Your task to perform on an android device: Clear all items from cart on walmart. Image 0: 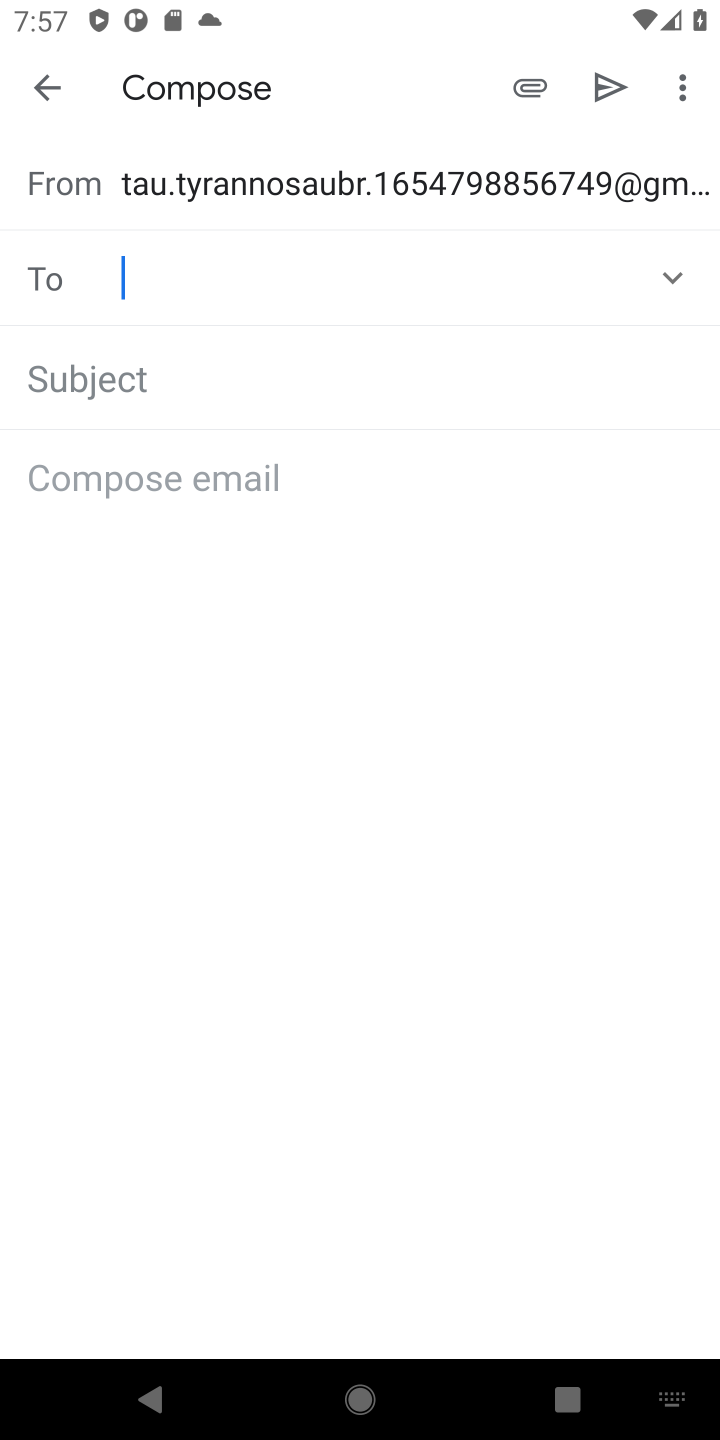
Step 0: press home button
Your task to perform on an android device: Clear all items from cart on walmart. Image 1: 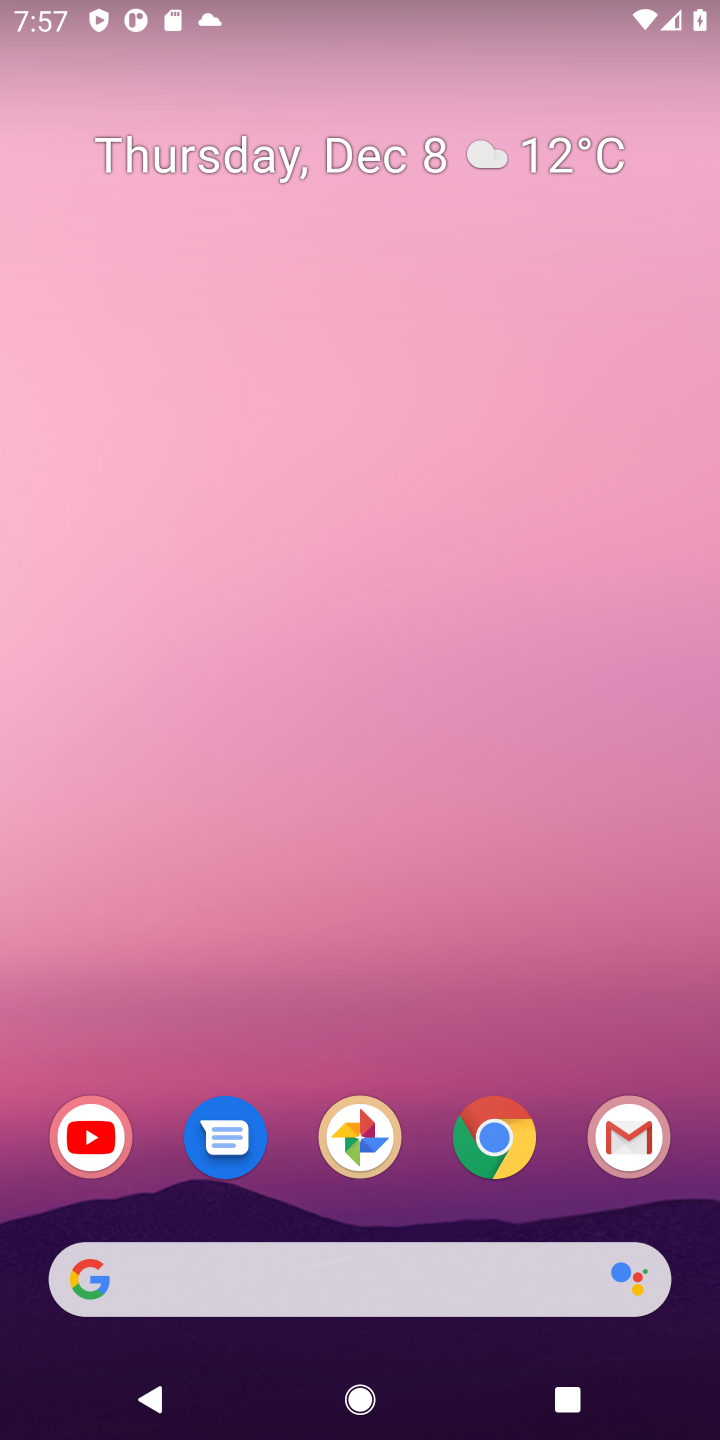
Step 1: click (484, 1147)
Your task to perform on an android device: Clear all items from cart on walmart. Image 2: 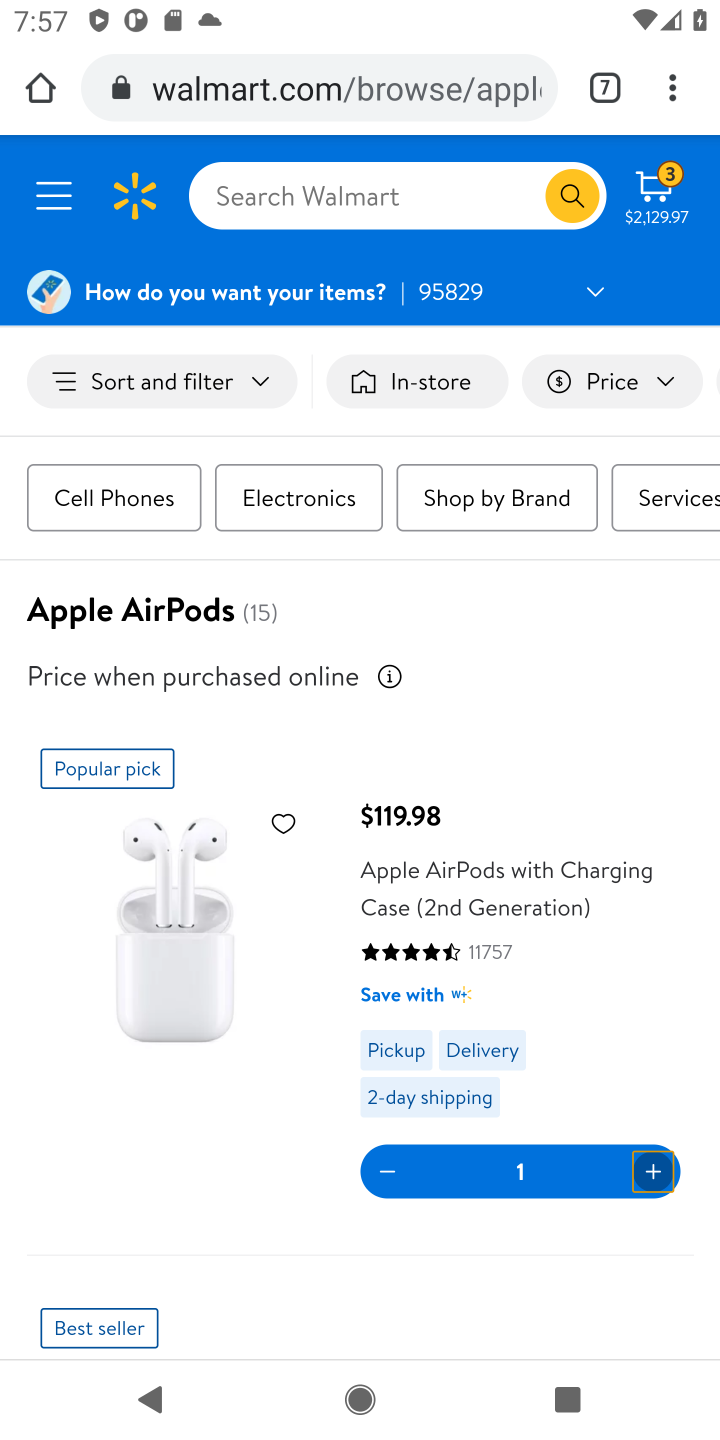
Step 2: click (663, 179)
Your task to perform on an android device: Clear all items from cart on walmart. Image 3: 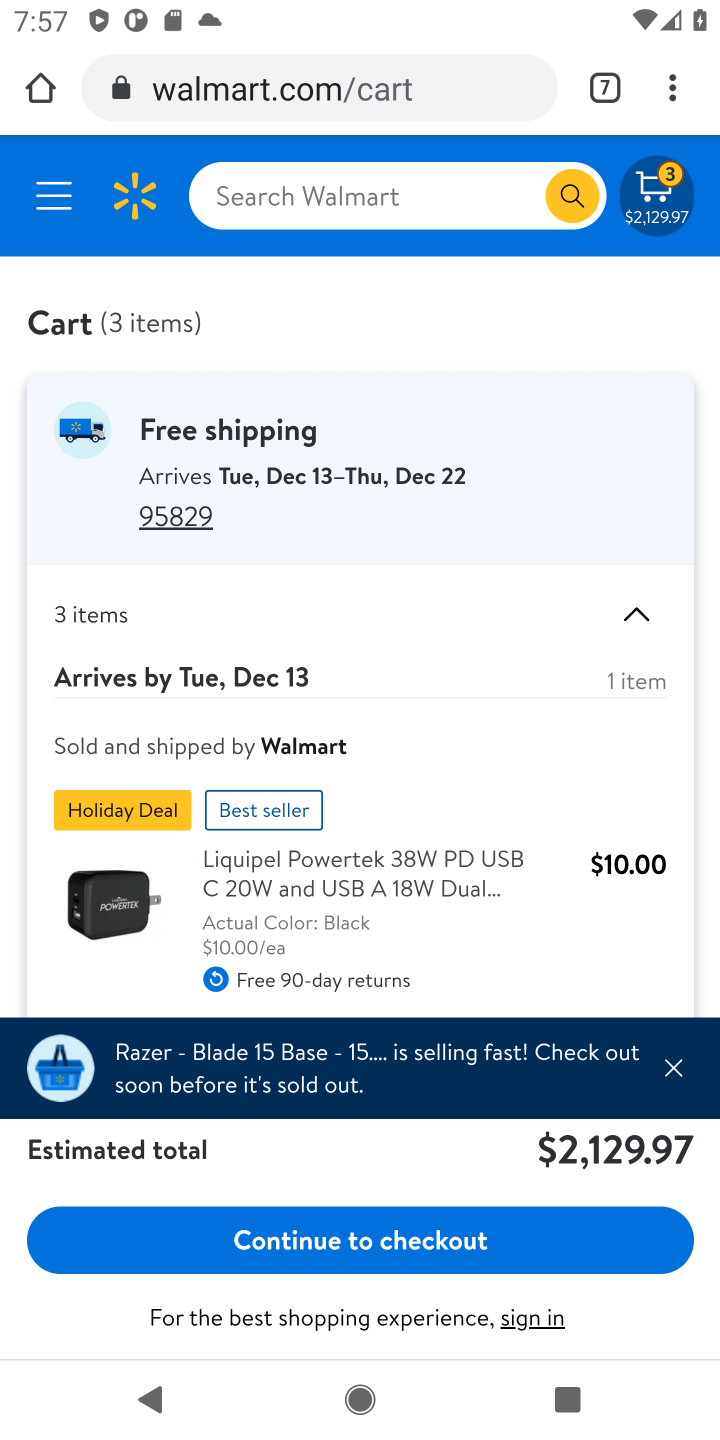
Step 3: click (680, 1065)
Your task to perform on an android device: Clear all items from cart on walmart. Image 4: 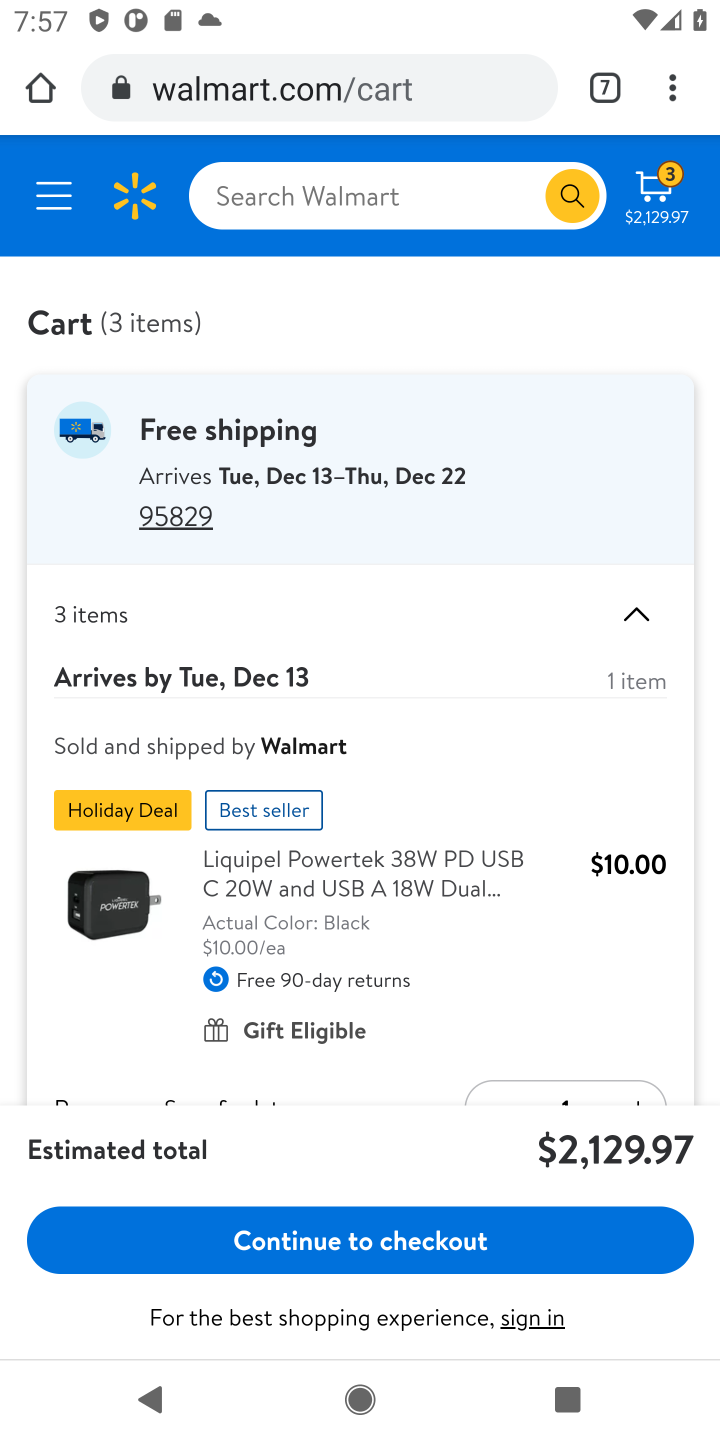
Step 4: drag from (403, 1041) to (473, 574)
Your task to perform on an android device: Clear all items from cart on walmart. Image 5: 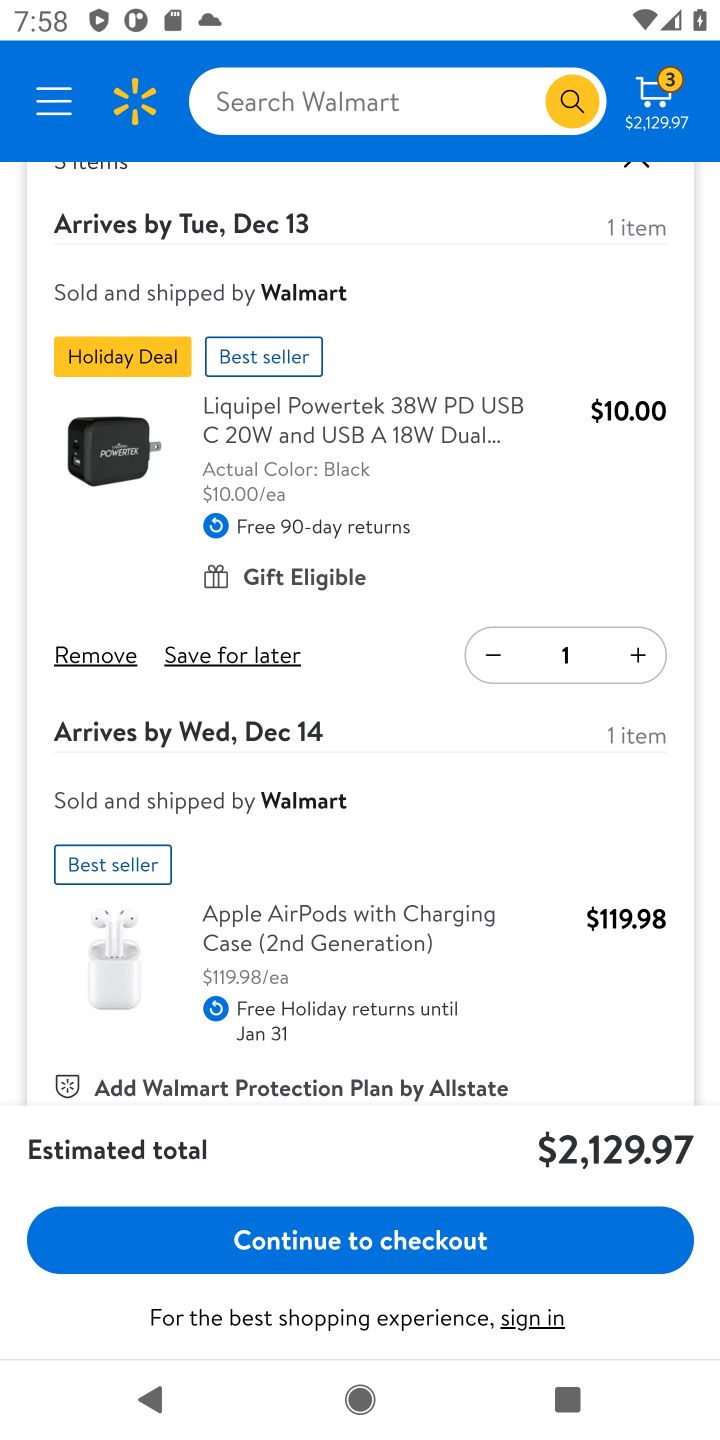
Step 5: click (108, 662)
Your task to perform on an android device: Clear all items from cart on walmart. Image 6: 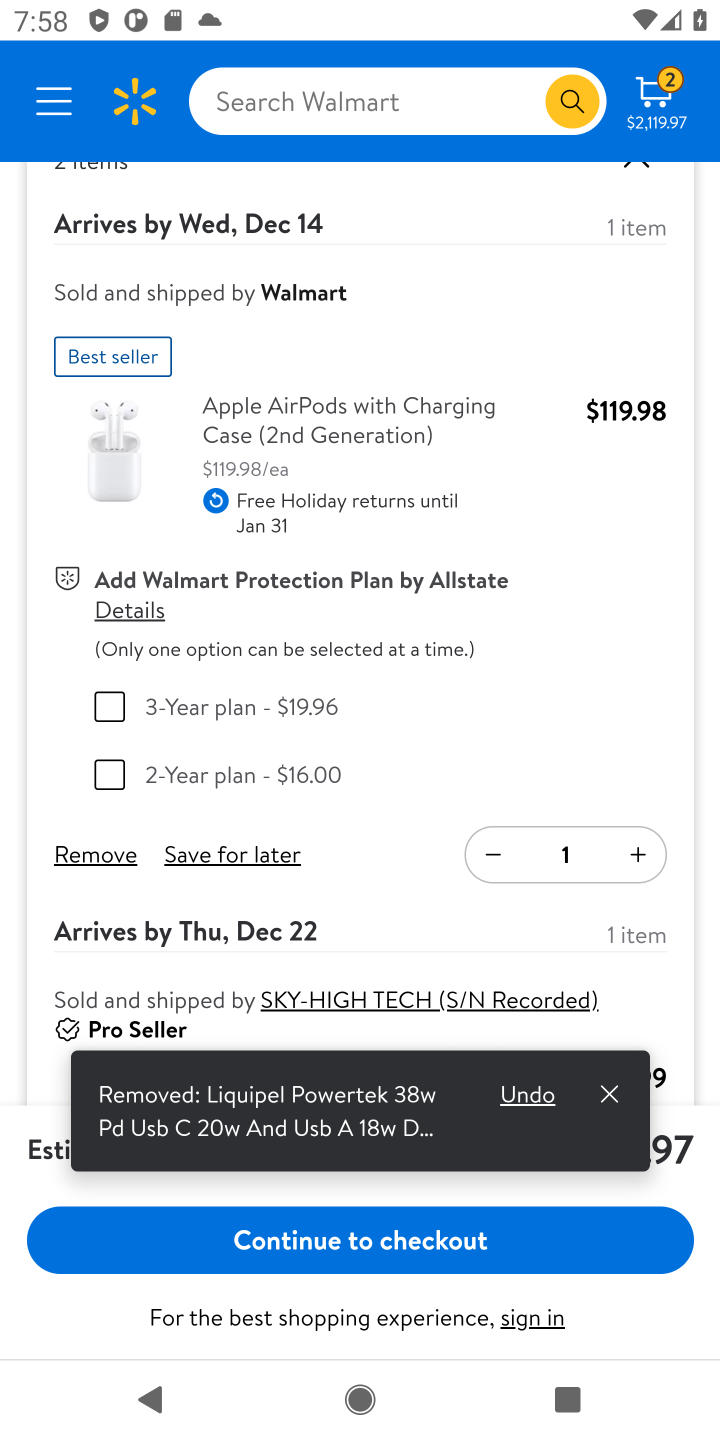
Step 6: click (86, 857)
Your task to perform on an android device: Clear all items from cart on walmart. Image 7: 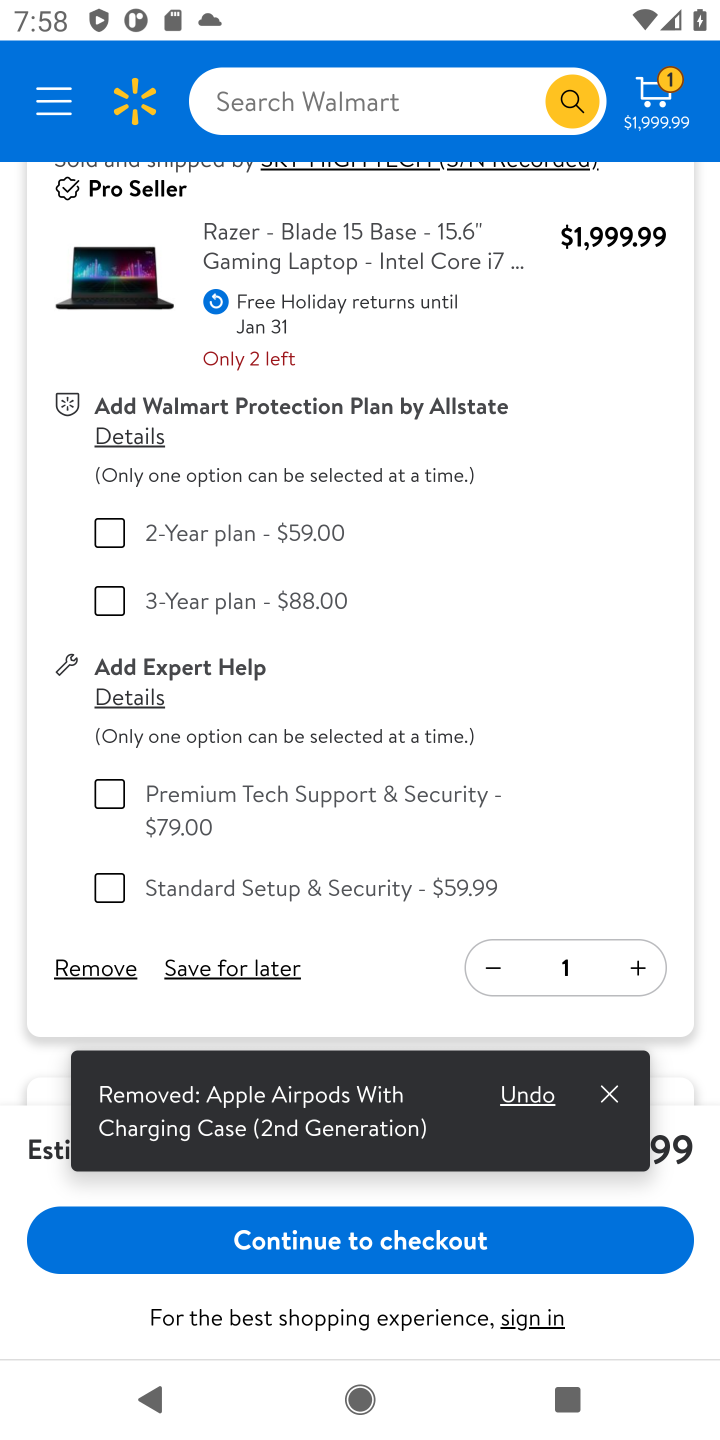
Step 7: click (84, 968)
Your task to perform on an android device: Clear all items from cart on walmart. Image 8: 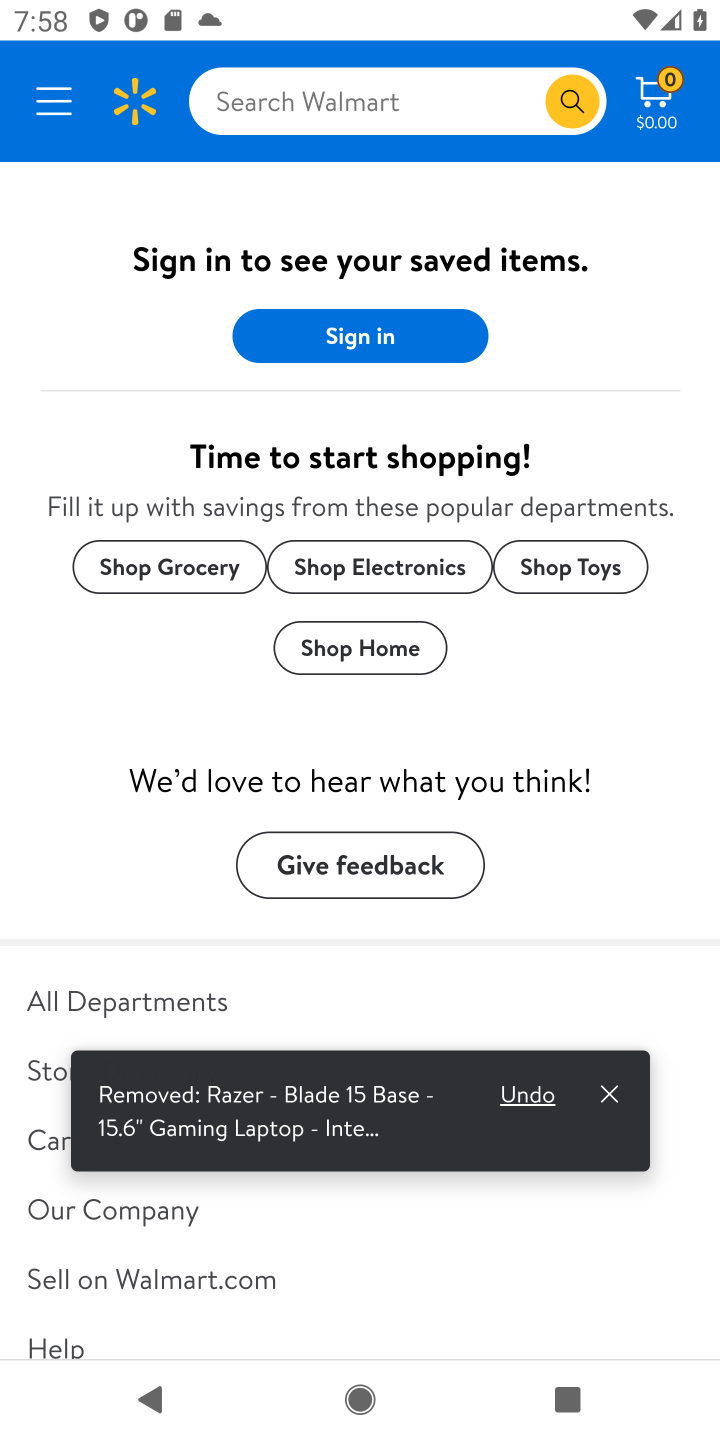
Step 8: task complete